Your task to perform on an android device: delete a single message in the gmail app Image 0: 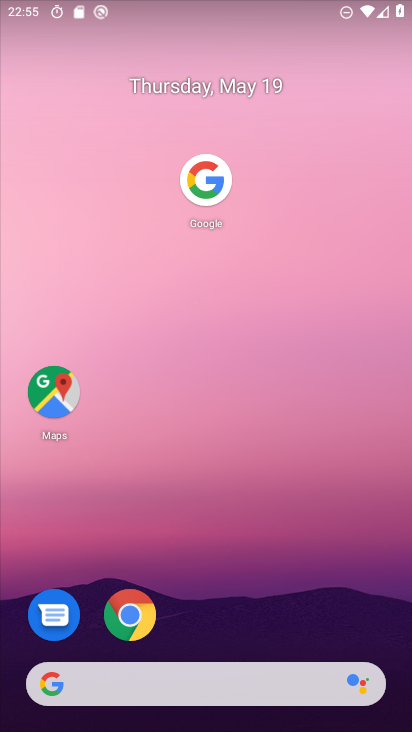
Step 0: drag from (291, 497) to (273, 52)
Your task to perform on an android device: delete a single message in the gmail app Image 1: 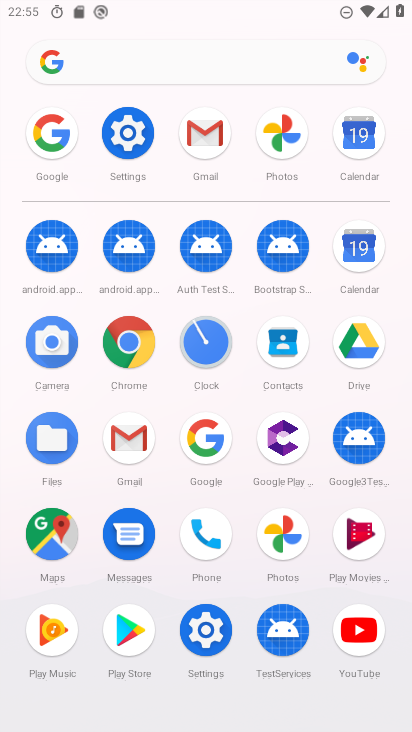
Step 1: click (208, 136)
Your task to perform on an android device: delete a single message in the gmail app Image 2: 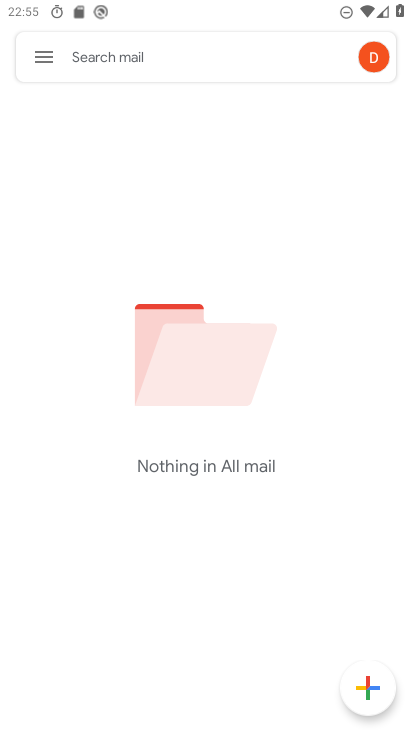
Step 2: click (52, 57)
Your task to perform on an android device: delete a single message in the gmail app Image 3: 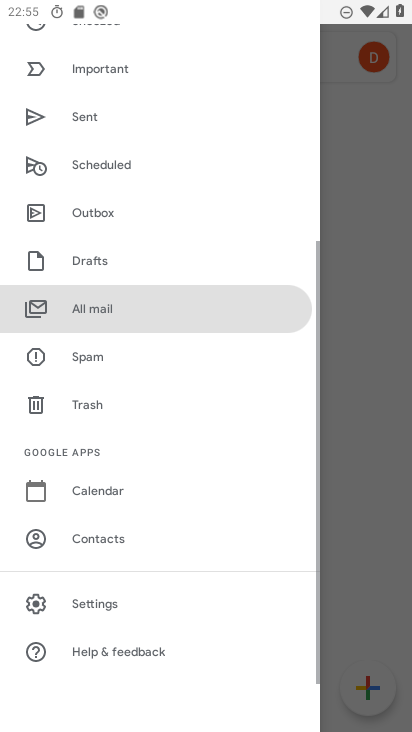
Step 3: click (173, 299)
Your task to perform on an android device: delete a single message in the gmail app Image 4: 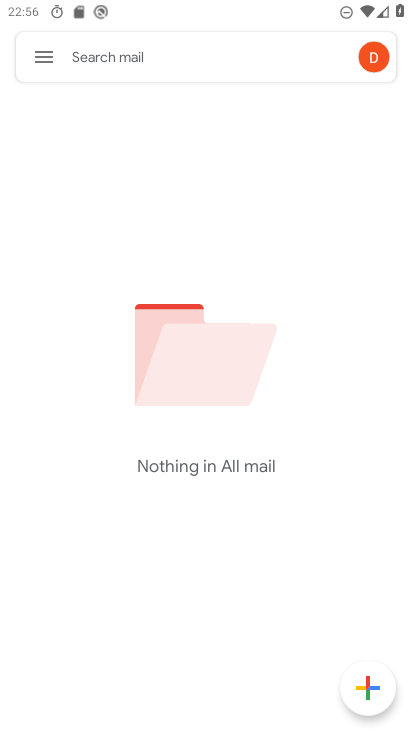
Step 4: task complete